Your task to perform on an android device: visit the assistant section in the google photos Image 0: 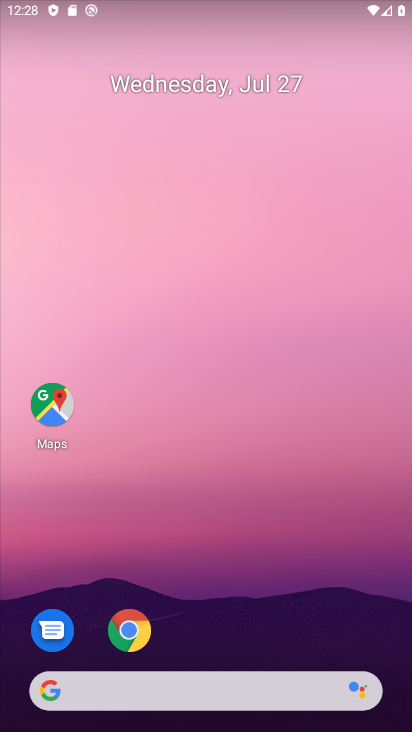
Step 0: drag from (200, 655) to (207, 204)
Your task to perform on an android device: visit the assistant section in the google photos Image 1: 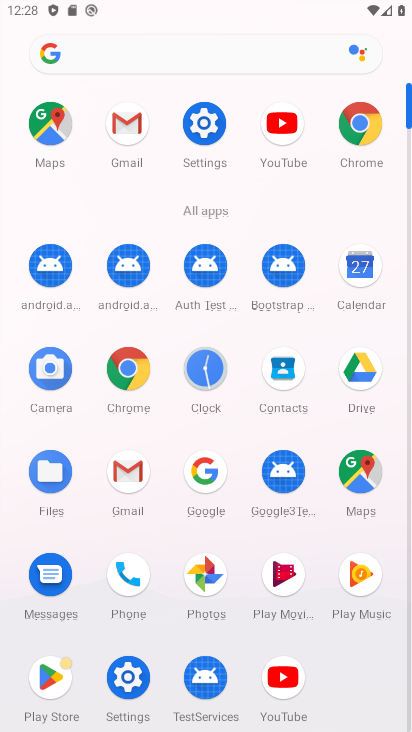
Step 1: click (210, 583)
Your task to perform on an android device: visit the assistant section in the google photos Image 2: 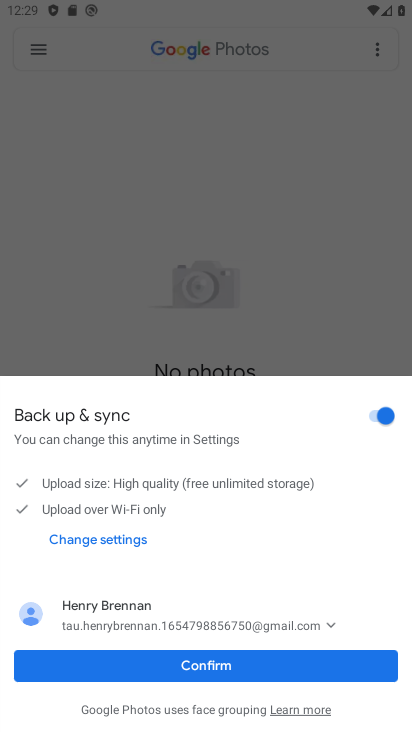
Step 2: click (202, 664)
Your task to perform on an android device: visit the assistant section in the google photos Image 3: 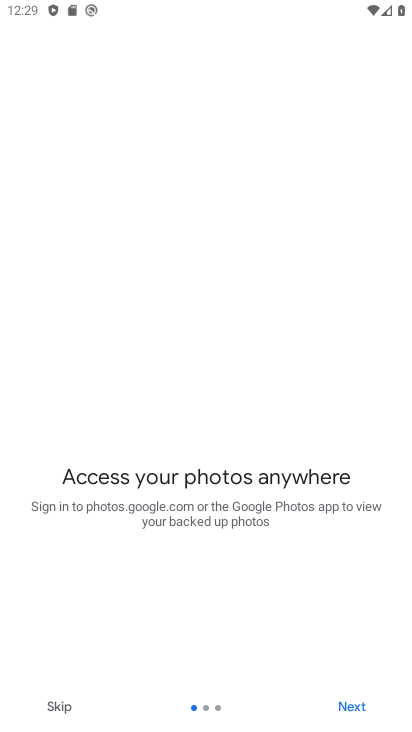
Step 3: click (210, 695)
Your task to perform on an android device: visit the assistant section in the google photos Image 4: 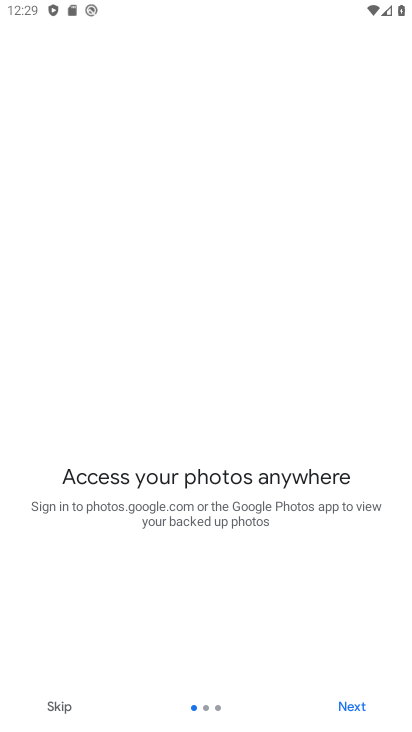
Step 4: click (362, 704)
Your task to perform on an android device: visit the assistant section in the google photos Image 5: 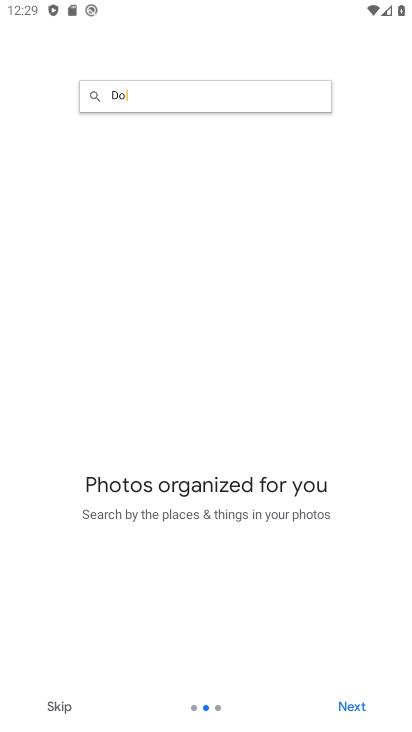
Step 5: click (362, 704)
Your task to perform on an android device: visit the assistant section in the google photos Image 6: 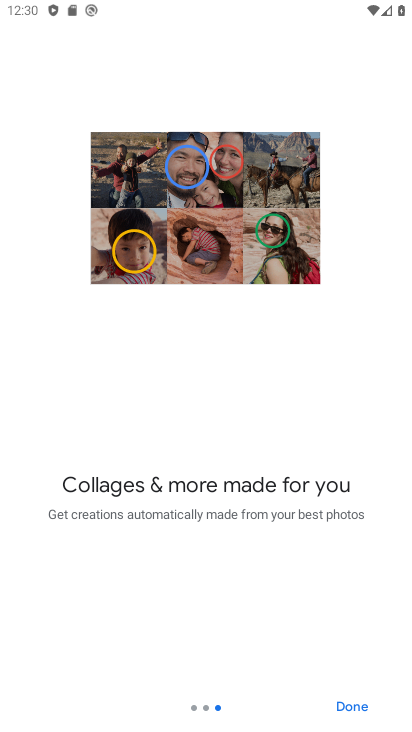
Step 6: click (361, 703)
Your task to perform on an android device: visit the assistant section in the google photos Image 7: 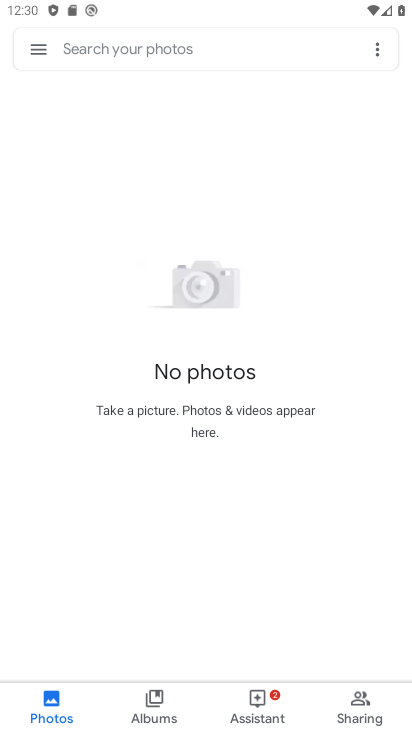
Step 7: click (265, 700)
Your task to perform on an android device: visit the assistant section in the google photos Image 8: 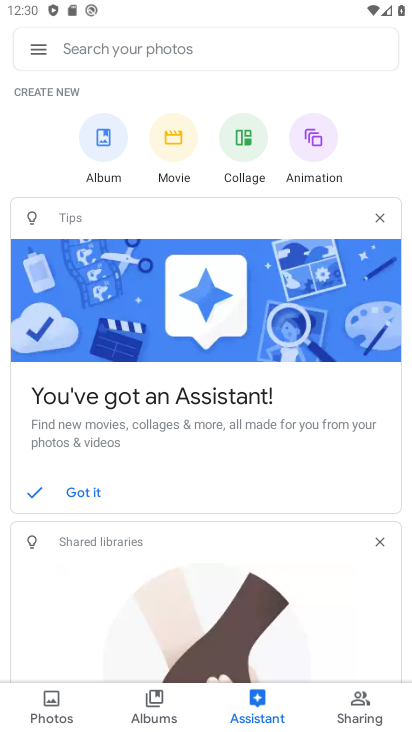
Step 8: task complete